Your task to perform on an android device: turn on the 24-hour format for clock Image 0: 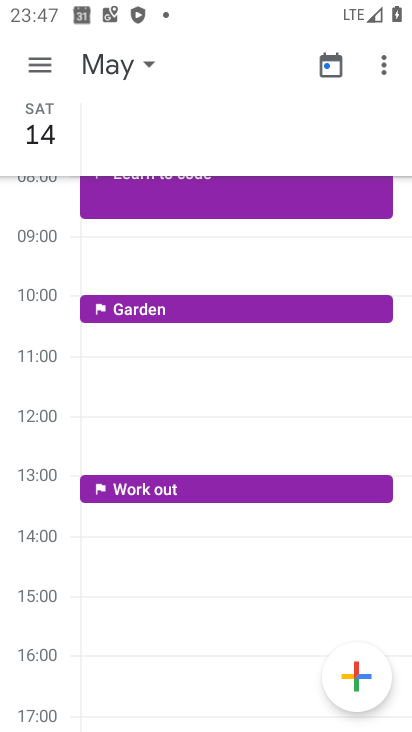
Step 0: press home button
Your task to perform on an android device: turn on the 24-hour format for clock Image 1: 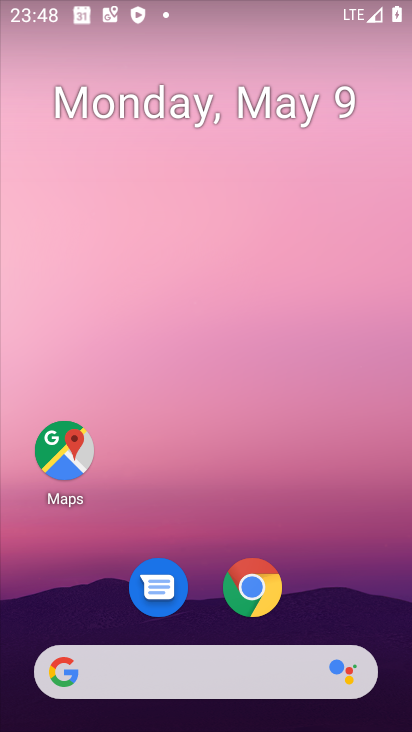
Step 1: drag from (190, 629) to (226, 124)
Your task to perform on an android device: turn on the 24-hour format for clock Image 2: 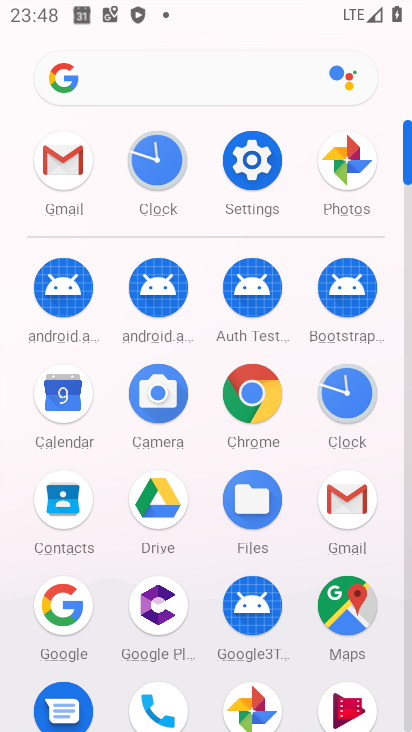
Step 2: click (160, 152)
Your task to perform on an android device: turn on the 24-hour format for clock Image 3: 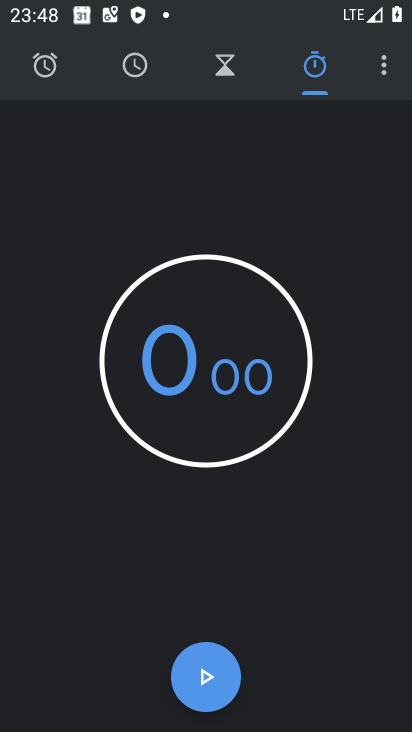
Step 3: click (375, 63)
Your task to perform on an android device: turn on the 24-hour format for clock Image 4: 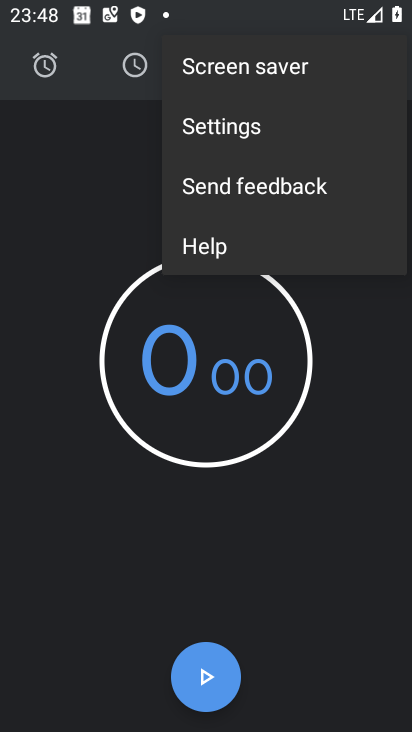
Step 4: click (224, 143)
Your task to perform on an android device: turn on the 24-hour format for clock Image 5: 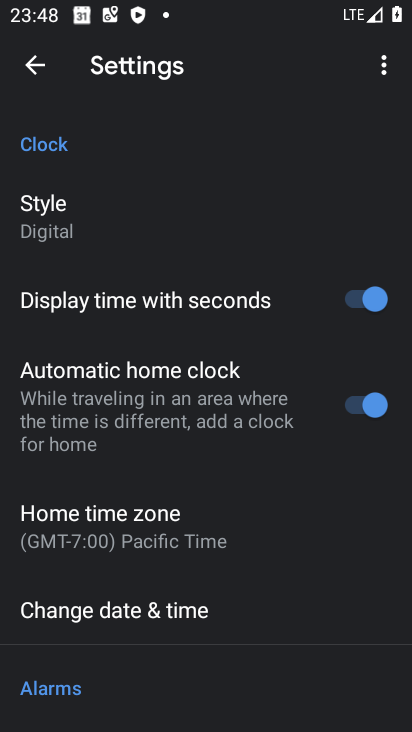
Step 5: drag from (149, 688) to (154, 323)
Your task to perform on an android device: turn on the 24-hour format for clock Image 6: 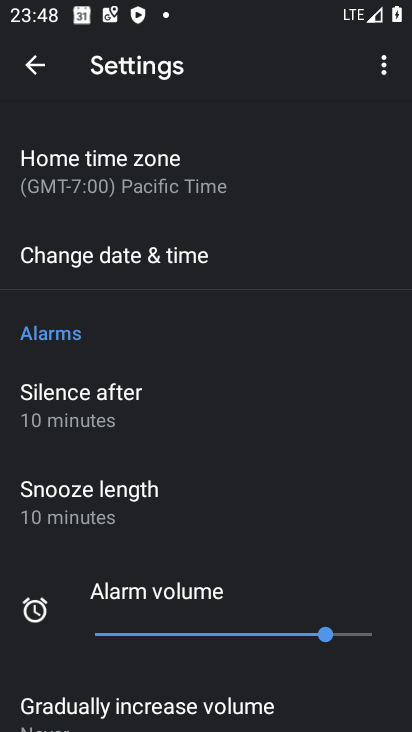
Step 6: click (219, 266)
Your task to perform on an android device: turn on the 24-hour format for clock Image 7: 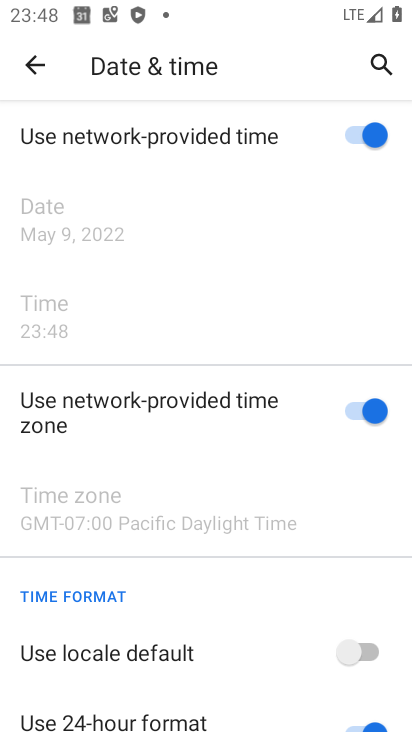
Step 7: task complete